Your task to perform on an android device: Open calendar and show me the first week of next month Image 0: 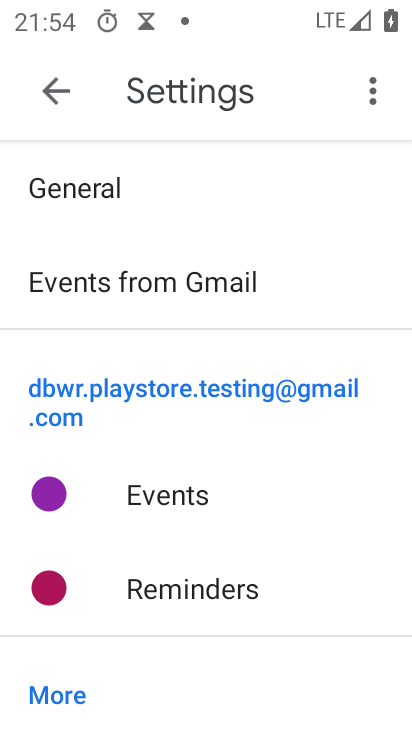
Step 0: press home button
Your task to perform on an android device: Open calendar and show me the first week of next month Image 1: 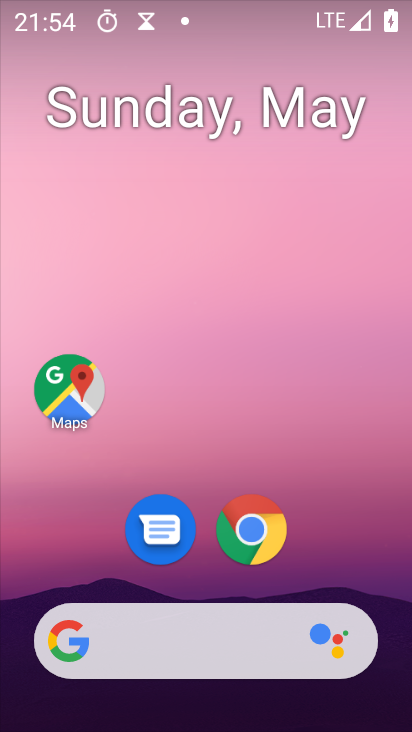
Step 1: drag from (190, 574) to (240, 12)
Your task to perform on an android device: Open calendar and show me the first week of next month Image 2: 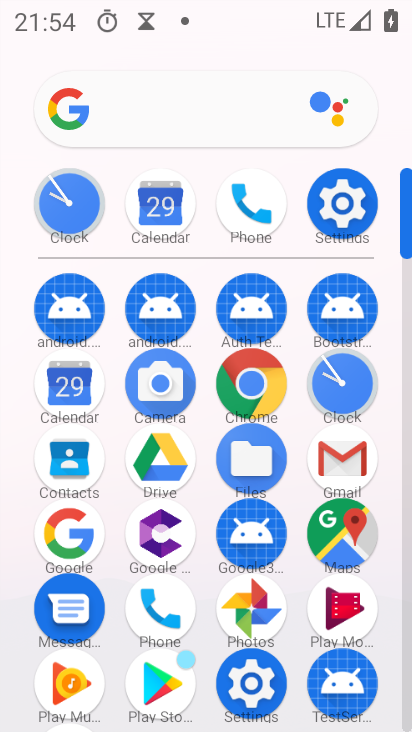
Step 2: click (53, 383)
Your task to perform on an android device: Open calendar and show me the first week of next month Image 3: 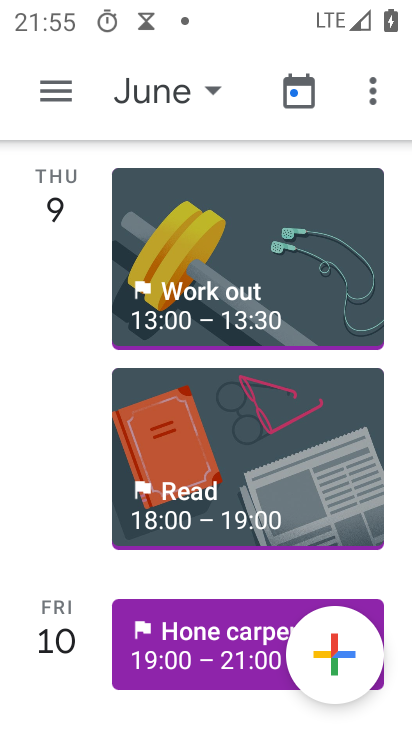
Step 3: click (176, 86)
Your task to perform on an android device: Open calendar and show me the first week of next month Image 4: 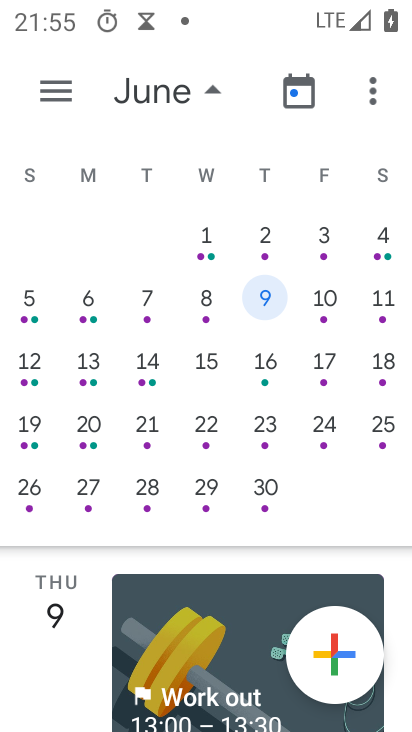
Step 4: click (204, 232)
Your task to perform on an android device: Open calendar and show me the first week of next month Image 5: 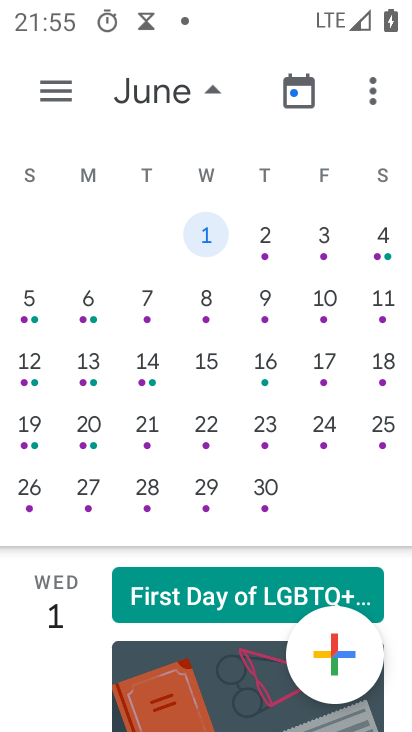
Step 5: task complete